Your task to perform on an android device: Check the weather Image 0: 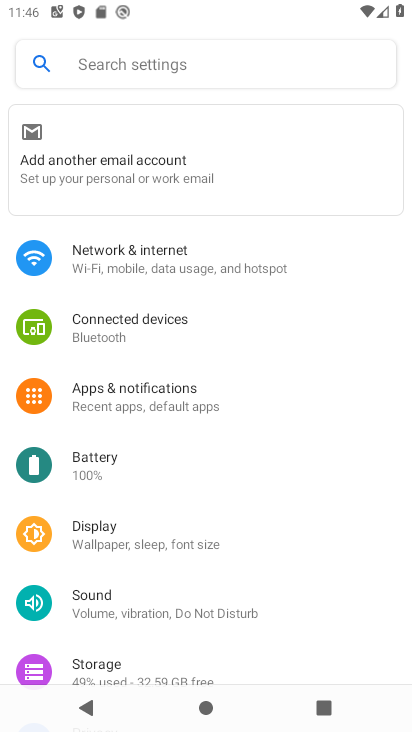
Step 0: press home button
Your task to perform on an android device: Check the weather Image 1: 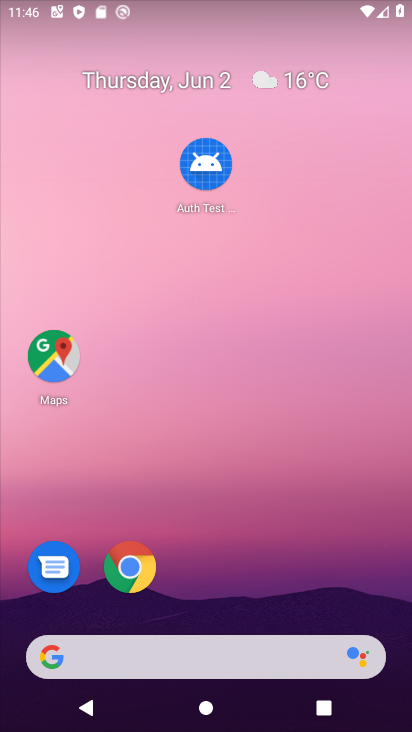
Step 1: click (313, 86)
Your task to perform on an android device: Check the weather Image 2: 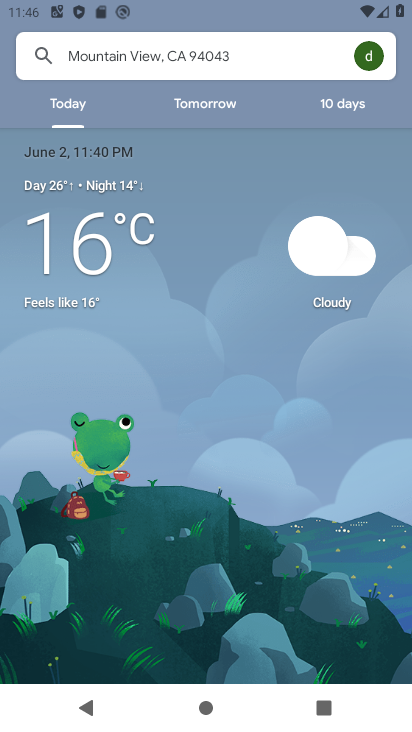
Step 2: task complete